Your task to perform on an android device: clear all cookies in the chrome app Image 0: 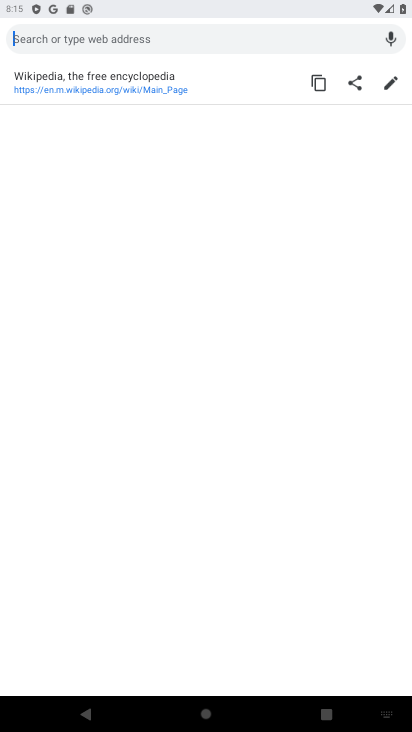
Step 0: press home button
Your task to perform on an android device: clear all cookies in the chrome app Image 1: 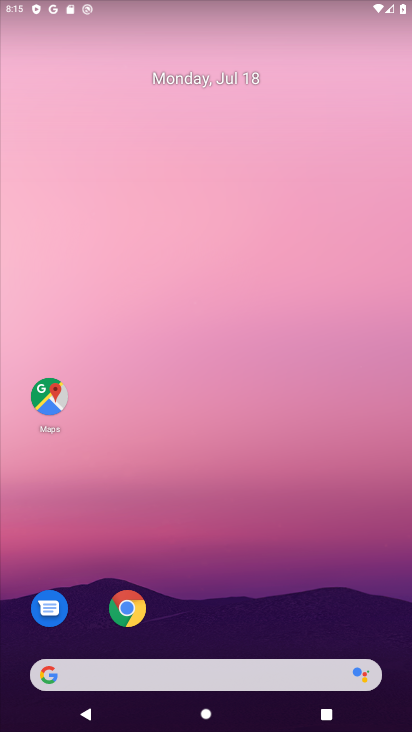
Step 1: click (129, 595)
Your task to perform on an android device: clear all cookies in the chrome app Image 2: 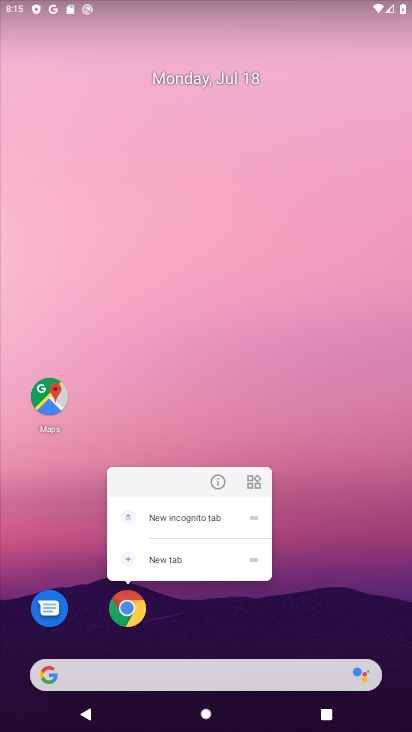
Step 2: click (125, 632)
Your task to perform on an android device: clear all cookies in the chrome app Image 3: 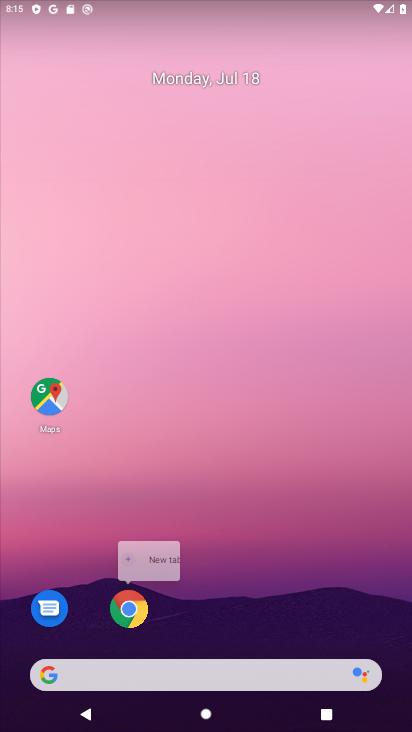
Step 3: click (126, 615)
Your task to perform on an android device: clear all cookies in the chrome app Image 4: 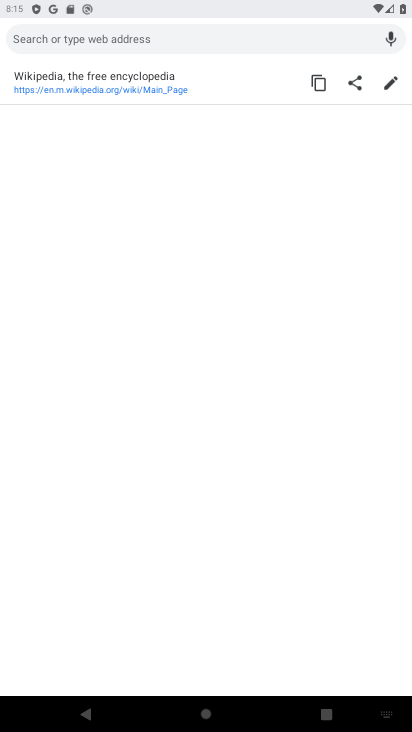
Step 4: click (150, 429)
Your task to perform on an android device: clear all cookies in the chrome app Image 5: 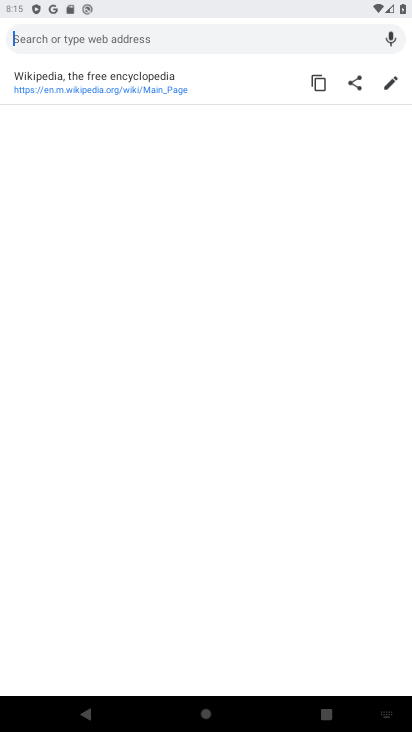
Step 5: click (106, 84)
Your task to perform on an android device: clear all cookies in the chrome app Image 6: 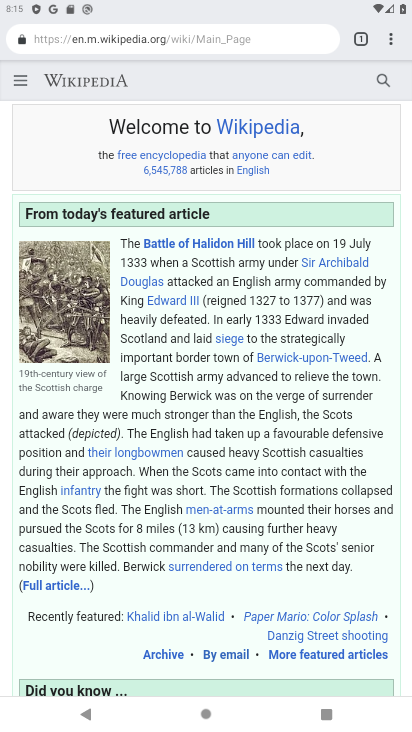
Step 6: click (393, 42)
Your task to perform on an android device: clear all cookies in the chrome app Image 7: 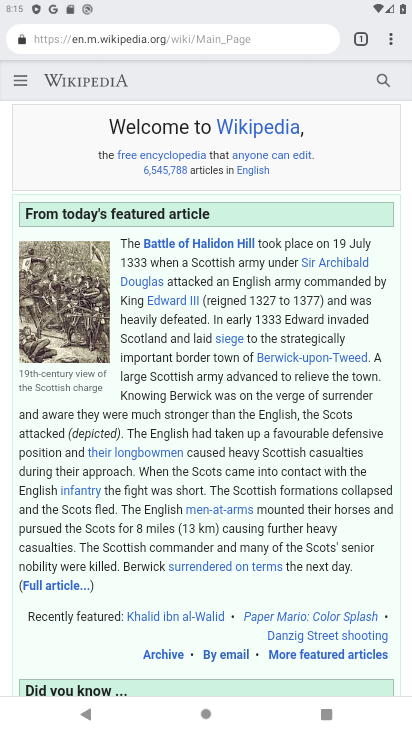
Step 7: click (390, 35)
Your task to perform on an android device: clear all cookies in the chrome app Image 8: 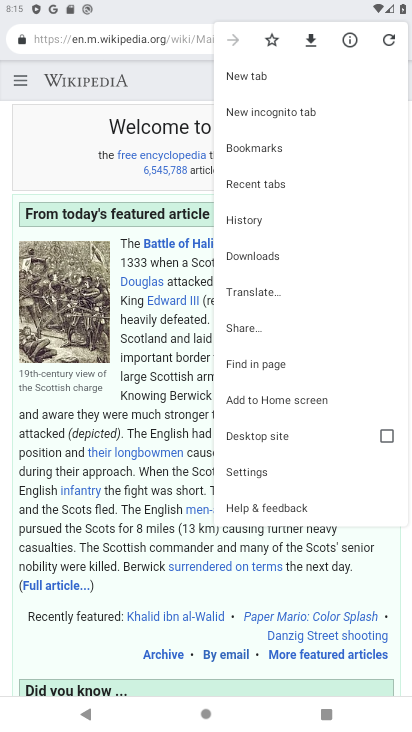
Step 8: click (265, 218)
Your task to perform on an android device: clear all cookies in the chrome app Image 9: 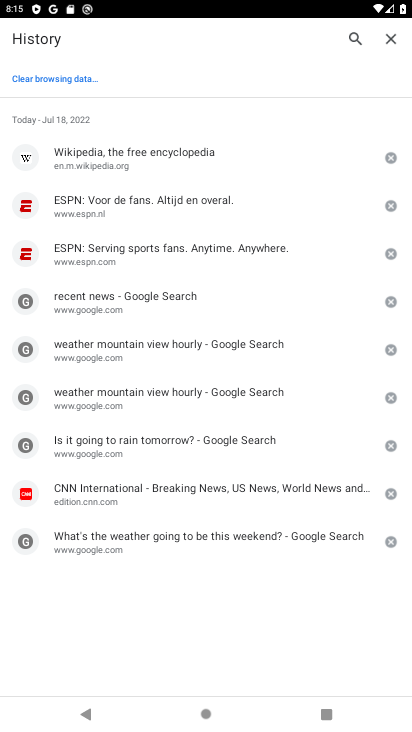
Step 9: click (64, 89)
Your task to perform on an android device: clear all cookies in the chrome app Image 10: 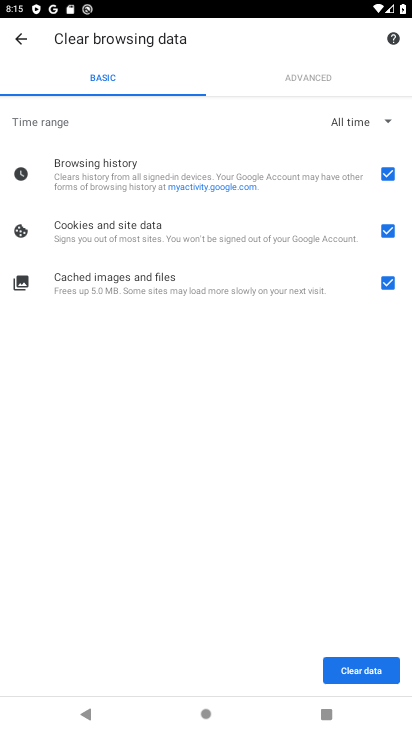
Step 10: click (395, 167)
Your task to perform on an android device: clear all cookies in the chrome app Image 11: 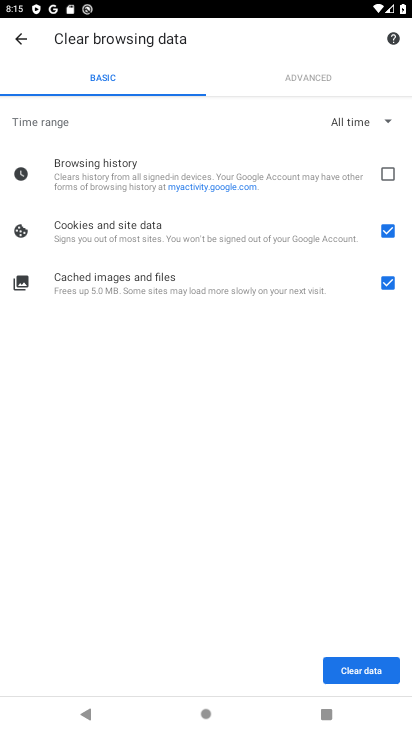
Step 11: click (389, 284)
Your task to perform on an android device: clear all cookies in the chrome app Image 12: 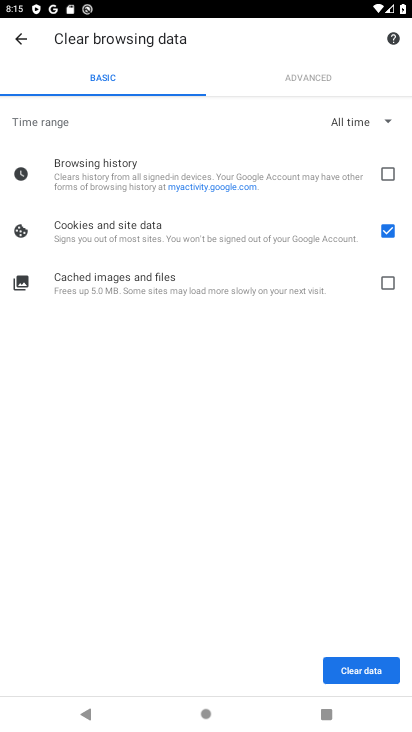
Step 12: click (352, 659)
Your task to perform on an android device: clear all cookies in the chrome app Image 13: 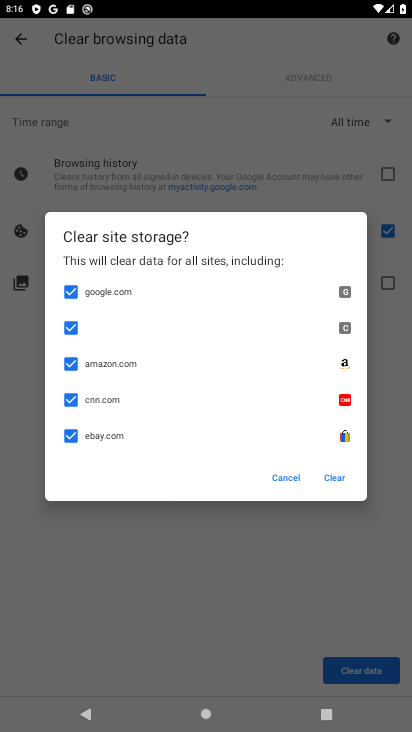
Step 13: click (328, 476)
Your task to perform on an android device: clear all cookies in the chrome app Image 14: 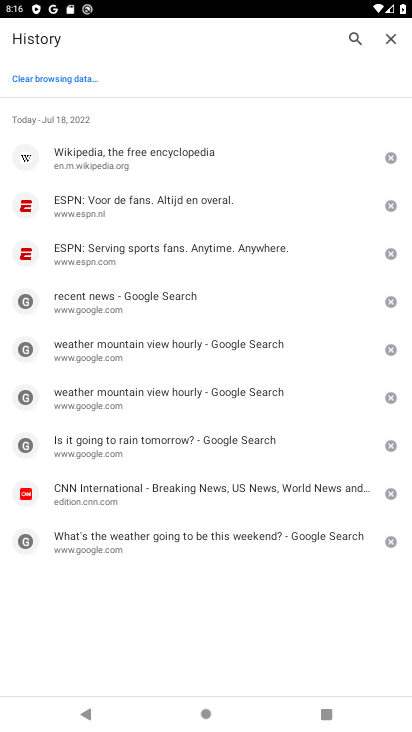
Step 14: task complete